Your task to perform on an android device: Open calendar and show me the first week of next month Image 0: 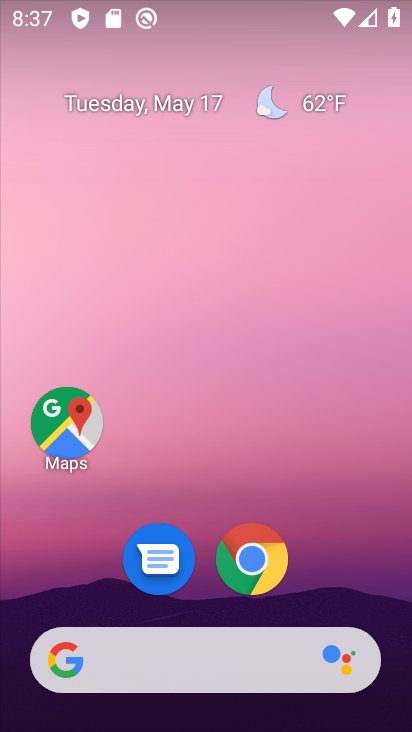
Step 0: drag from (244, 654) to (244, 209)
Your task to perform on an android device: Open calendar and show me the first week of next month Image 1: 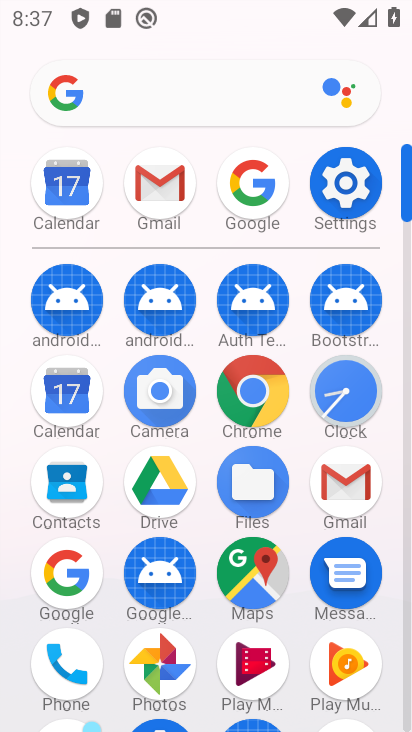
Step 1: click (74, 408)
Your task to perform on an android device: Open calendar and show me the first week of next month Image 2: 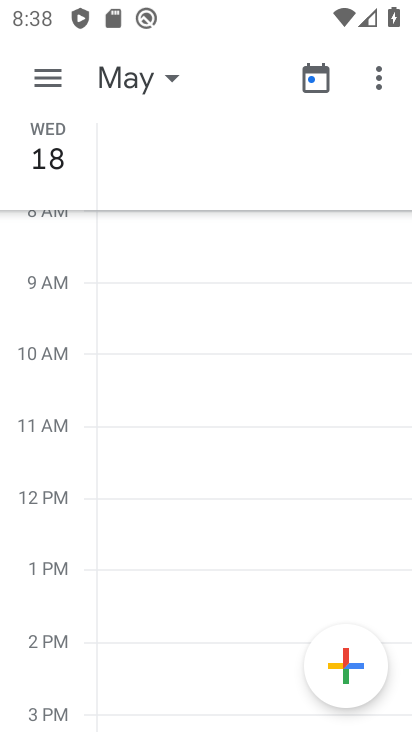
Step 2: click (46, 89)
Your task to perform on an android device: Open calendar and show me the first week of next month Image 3: 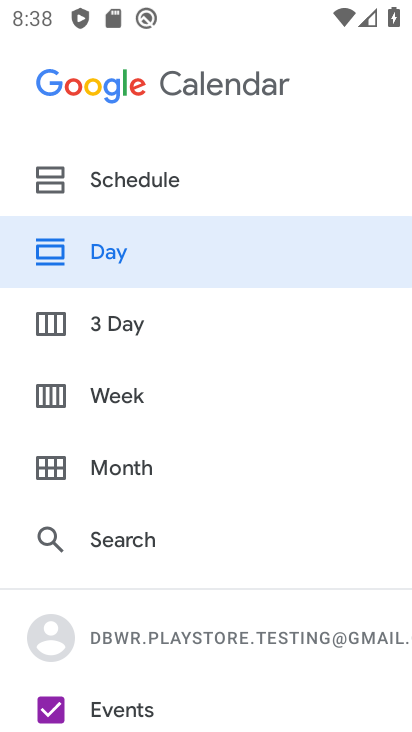
Step 3: click (181, 479)
Your task to perform on an android device: Open calendar and show me the first week of next month Image 4: 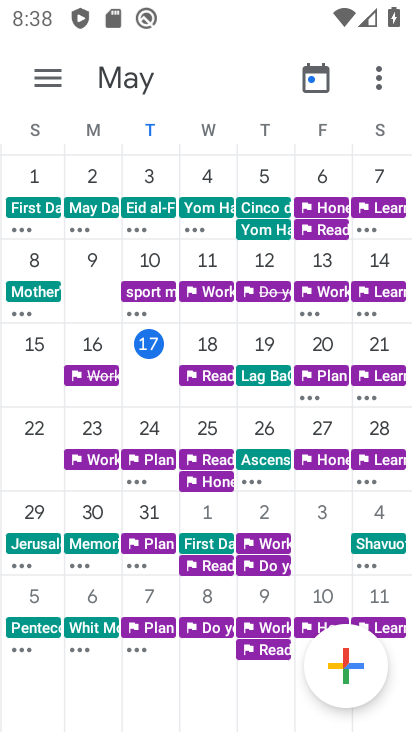
Step 4: task complete